Your task to perform on an android device: delete the emails in spam in the gmail app Image 0: 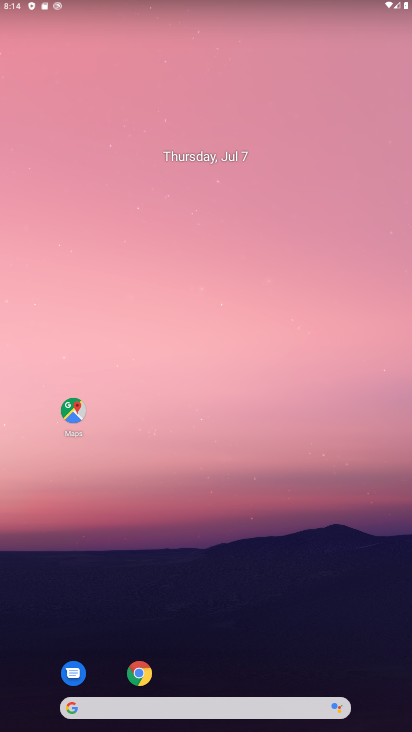
Step 0: drag from (216, 677) to (135, 105)
Your task to perform on an android device: delete the emails in spam in the gmail app Image 1: 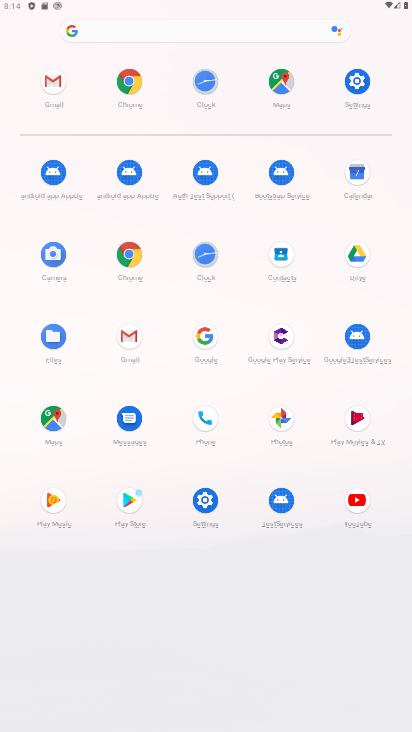
Step 1: click (126, 339)
Your task to perform on an android device: delete the emails in spam in the gmail app Image 2: 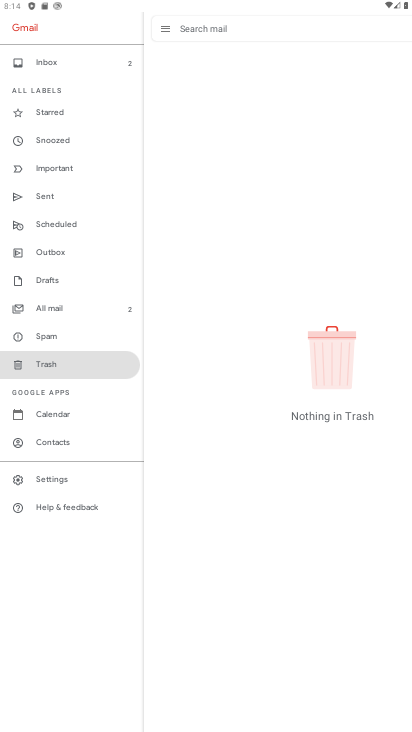
Step 2: click (44, 332)
Your task to perform on an android device: delete the emails in spam in the gmail app Image 3: 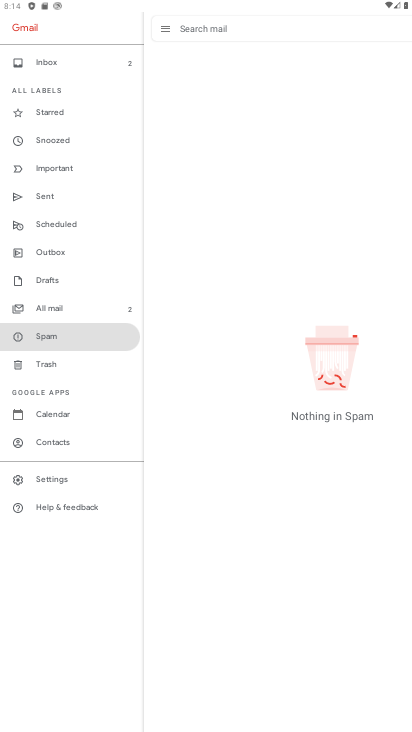
Step 3: task complete